Your task to perform on an android device: Go to Google maps Image 0: 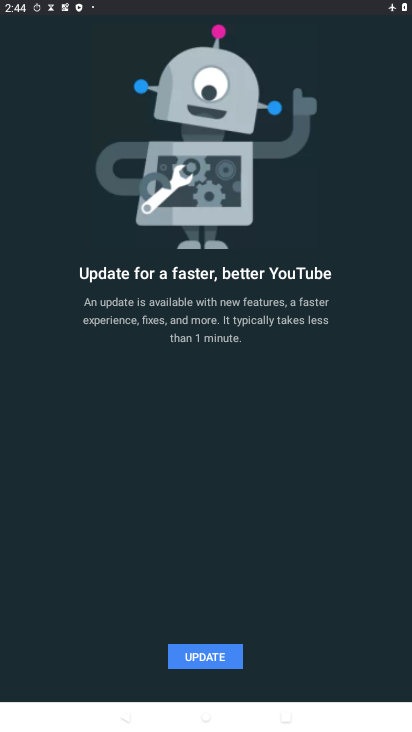
Step 0: press home button
Your task to perform on an android device: Go to Google maps Image 1: 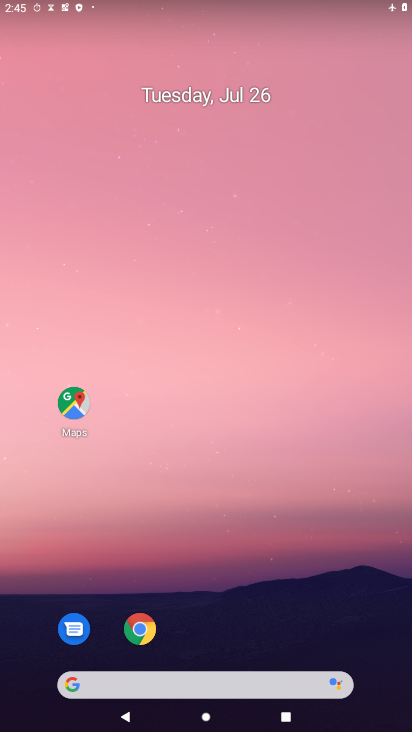
Step 1: drag from (181, 675) to (342, 3)
Your task to perform on an android device: Go to Google maps Image 2: 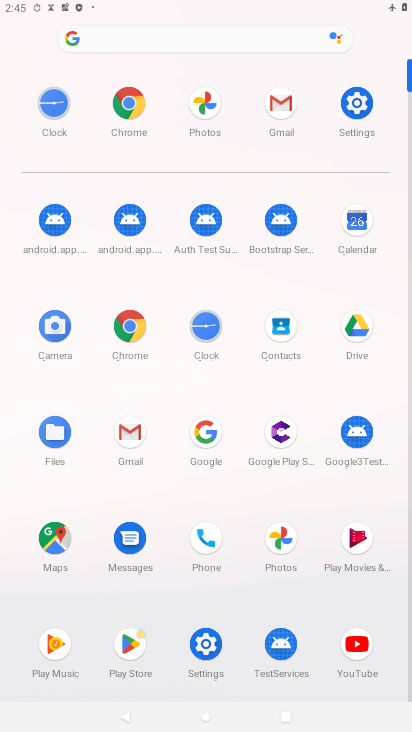
Step 2: click (51, 536)
Your task to perform on an android device: Go to Google maps Image 3: 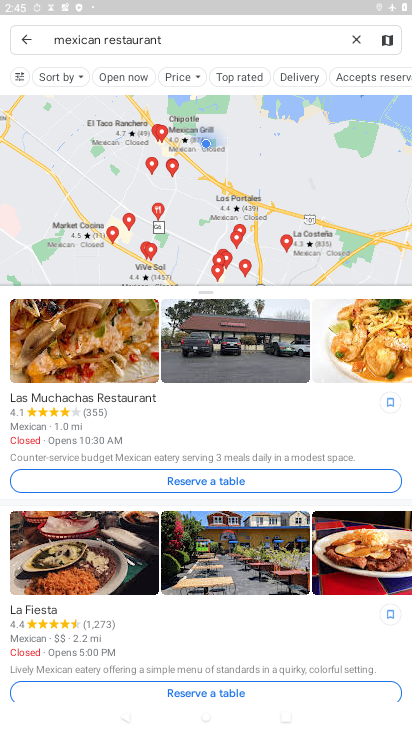
Step 3: task complete